Your task to perform on an android device: What's the news in theFalkland Islands? Image 0: 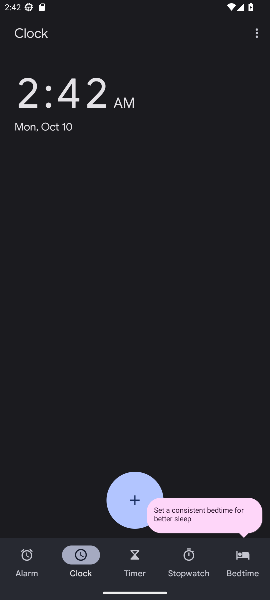
Step 0: press home button
Your task to perform on an android device: What's the news in theFalkland Islands? Image 1: 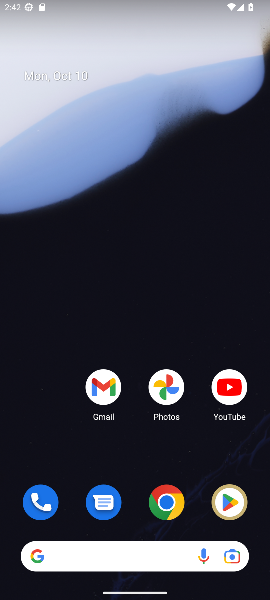
Step 1: click (165, 506)
Your task to perform on an android device: What's the news in theFalkland Islands? Image 2: 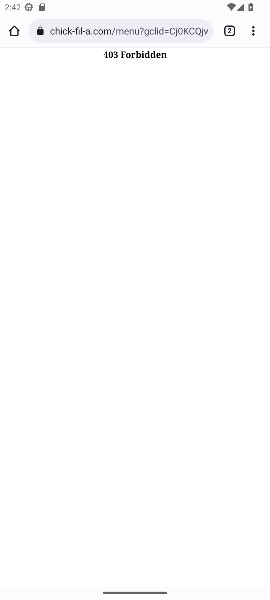
Step 2: click (153, 31)
Your task to perform on an android device: What's the news in theFalkland Islands? Image 3: 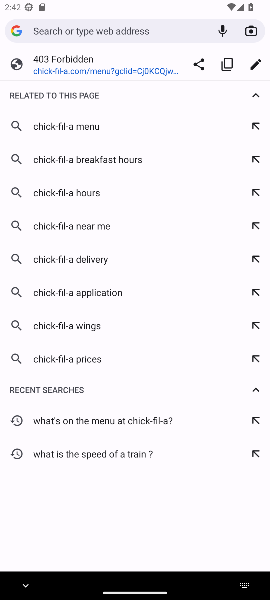
Step 3: type "What's the news in theFalkland Islands?"
Your task to perform on an android device: What's the news in theFalkland Islands? Image 4: 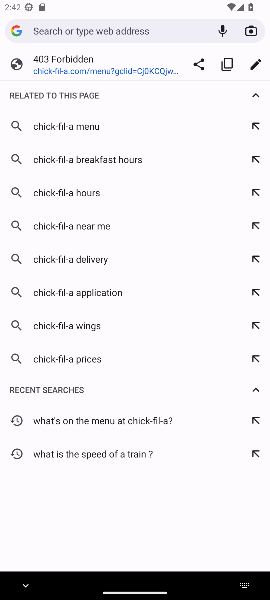
Step 4: click (120, 28)
Your task to perform on an android device: What's the news in theFalkland Islands? Image 5: 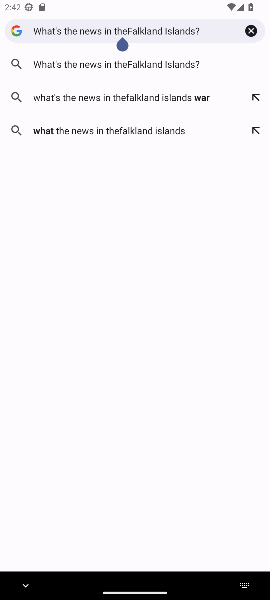
Step 5: click (139, 67)
Your task to perform on an android device: What's the news in theFalkland Islands? Image 6: 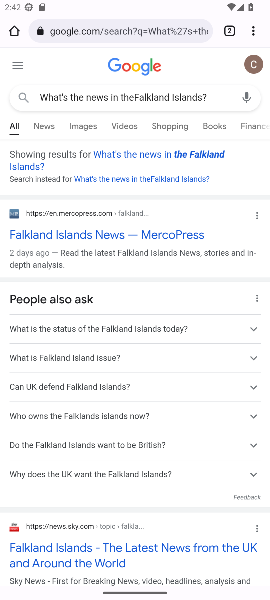
Step 6: click (114, 231)
Your task to perform on an android device: What's the news in theFalkland Islands? Image 7: 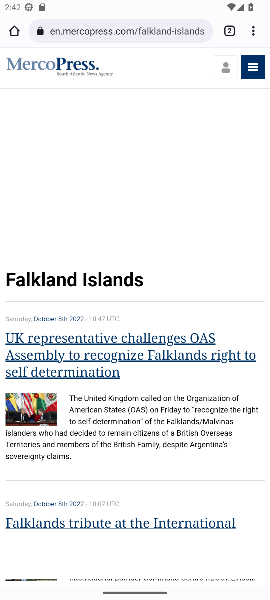
Step 7: task complete